Your task to perform on an android device: delete browsing data in the chrome app Image 0: 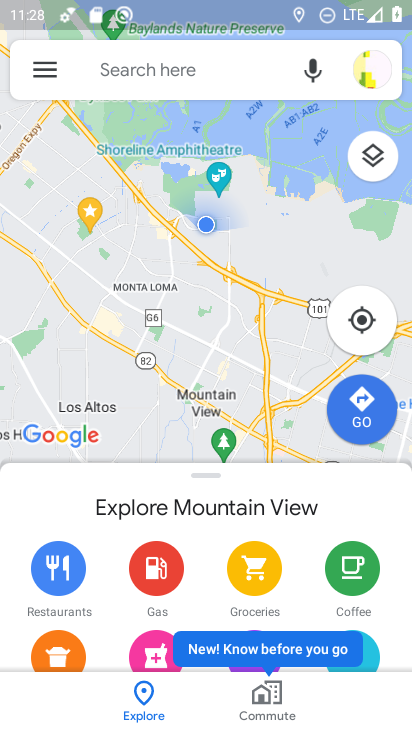
Step 0: press home button
Your task to perform on an android device: delete browsing data in the chrome app Image 1: 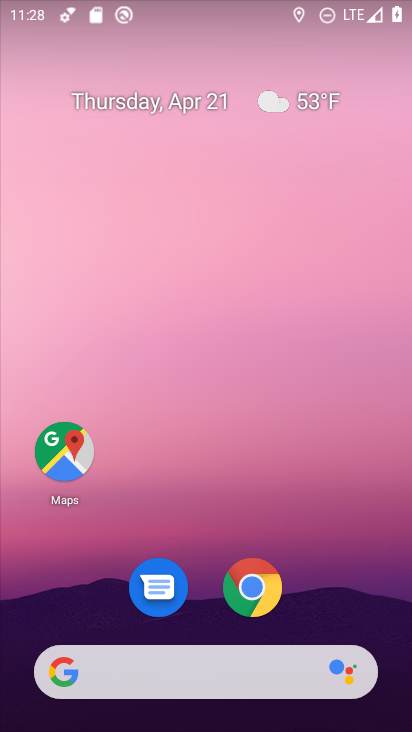
Step 1: click (249, 592)
Your task to perform on an android device: delete browsing data in the chrome app Image 2: 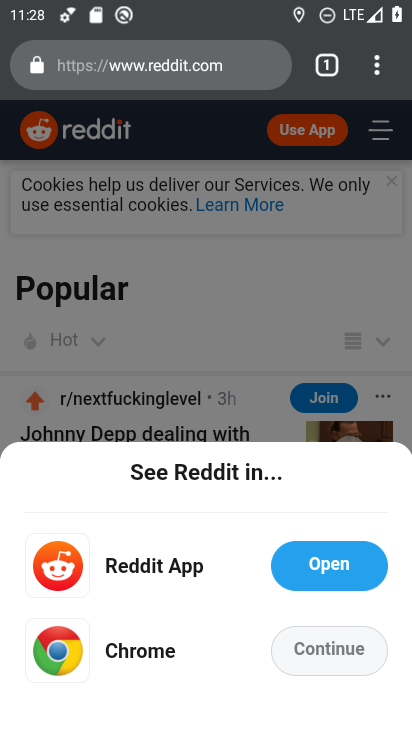
Step 2: drag from (379, 55) to (244, 313)
Your task to perform on an android device: delete browsing data in the chrome app Image 3: 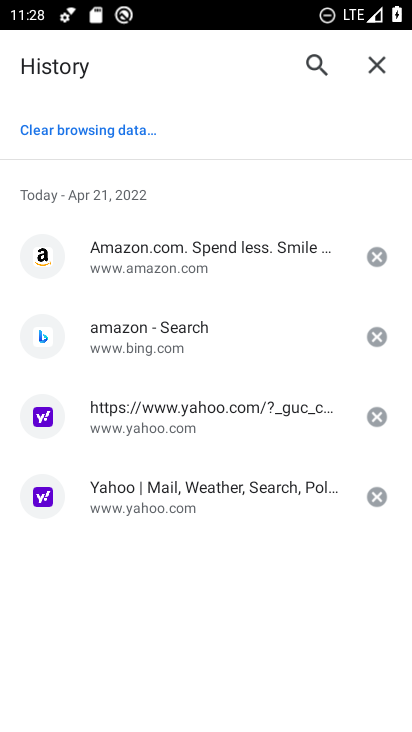
Step 3: click (89, 143)
Your task to perform on an android device: delete browsing data in the chrome app Image 4: 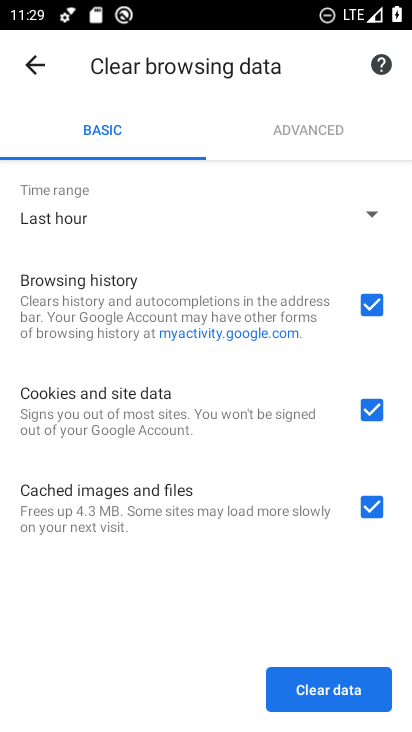
Step 4: click (324, 668)
Your task to perform on an android device: delete browsing data in the chrome app Image 5: 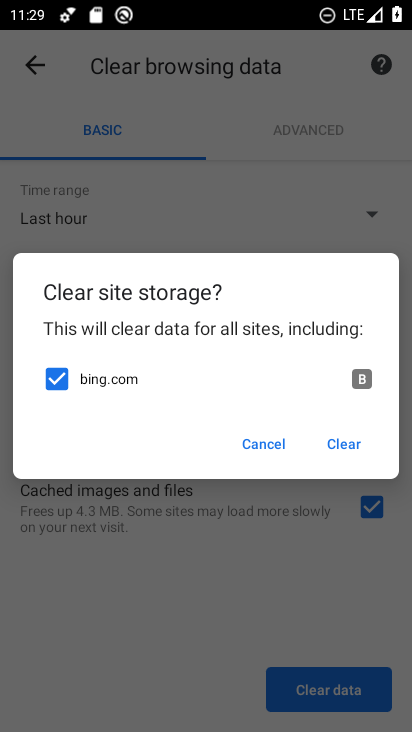
Step 5: click (339, 437)
Your task to perform on an android device: delete browsing data in the chrome app Image 6: 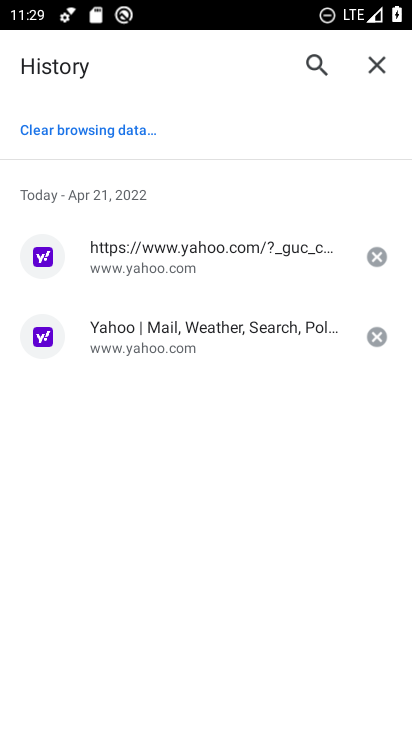
Step 6: task complete